Your task to perform on an android device: choose inbox layout in the gmail app Image 0: 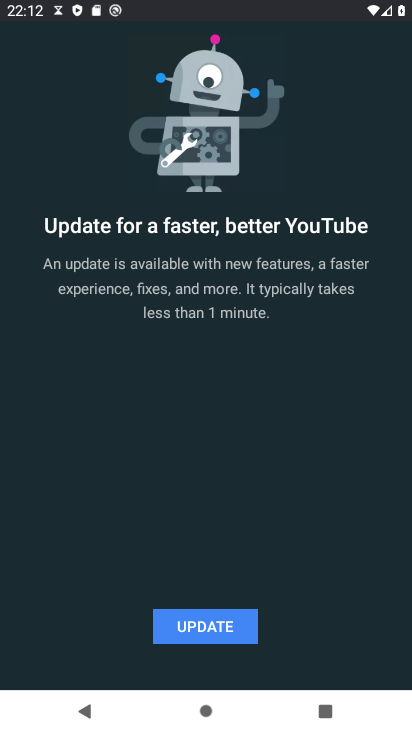
Step 0: press home button
Your task to perform on an android device: choose inbox layout in the gmail app Image 1: 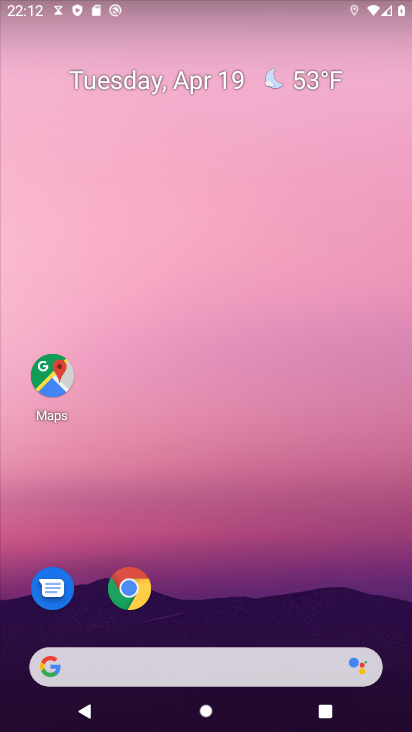
Step 1: drag from (220, 626) to (252, 75)
Your task to perform on an android device: choose inbox layout in the gmail app Image 2: 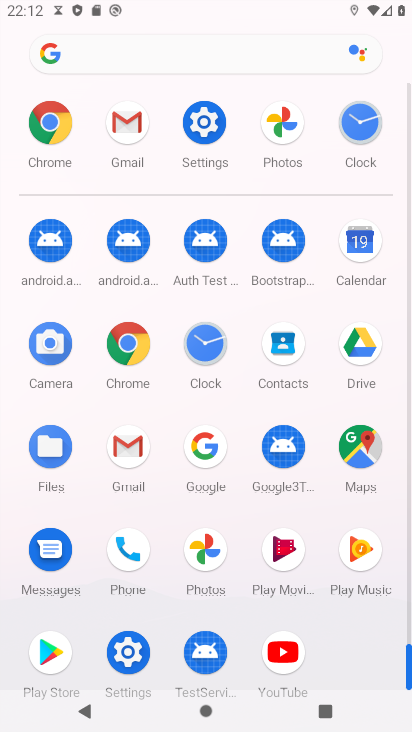
Step 2: click (126, 126)
Your task to perform on an android device: choose inbox layout in the gmail app Image 3: 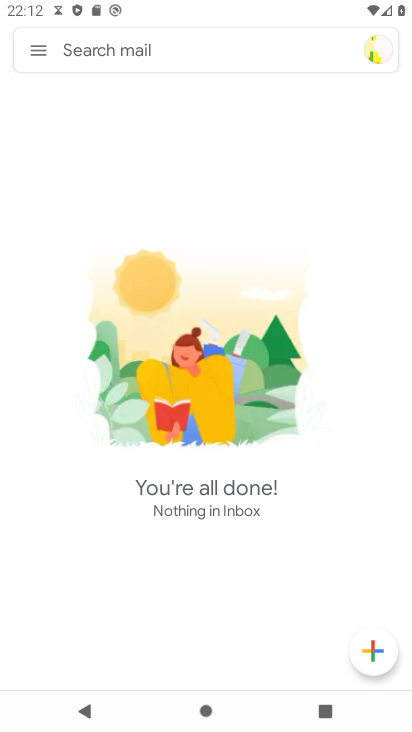
Step 3: click (36, 49)
Your task to perform on an android device: choose inbox layout in the gmail app Image 4: 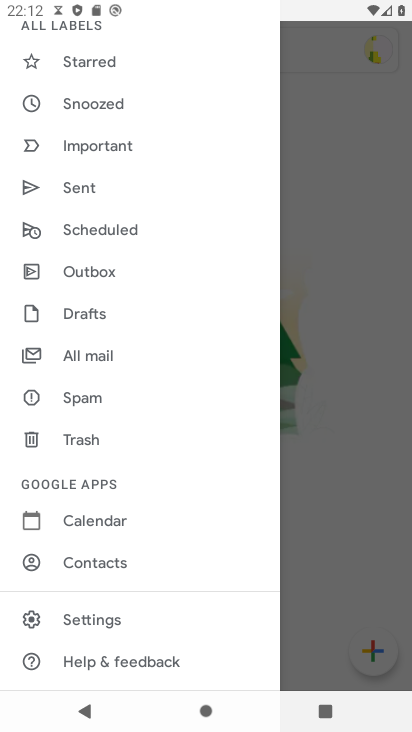
Step 4: click (109, 620)
Your task to perform on an android device: choose inbox layout in the gmail app Image 5: 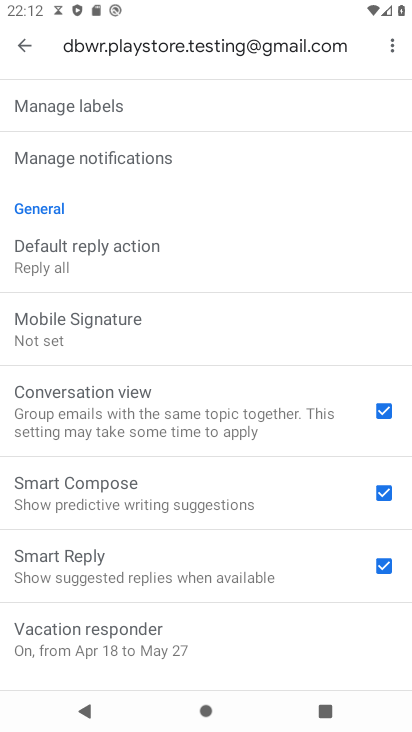
Step 5: drag from (184, 242) to (205, 363)
Your task to perform on an android device: choose inbox layout in the gmail app Image 6: 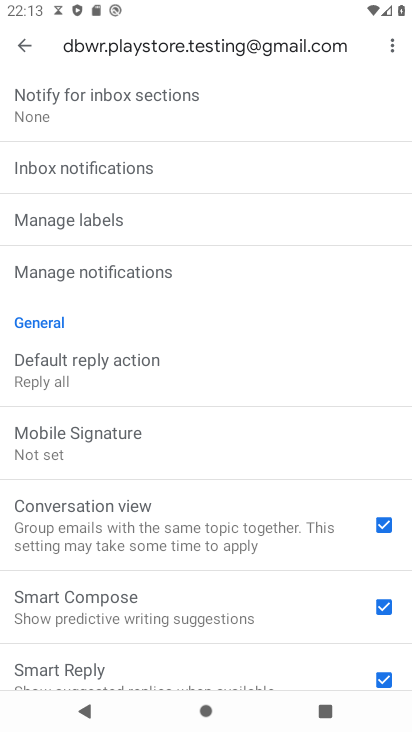
Step 6: drag from (199, 285) to (189, 382)
Your task to perform on an android device: choose inbox layout in the gmail app Image 7: 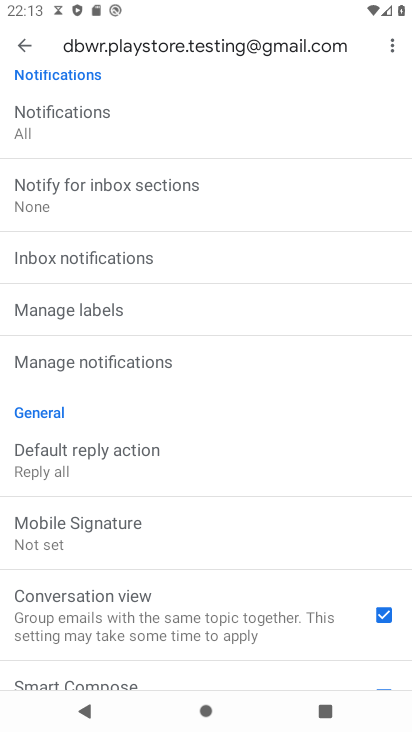
Step 7: drag from (187, 139) to (168, 273)
Your task to perform on an android device: choose inbox layout in the gmail app Image 8: 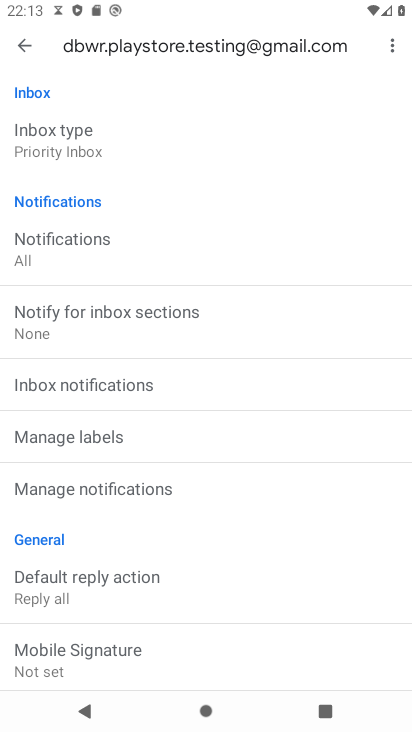
Step 8: click (77, 156)
Your task to perform on an android device: choose inbox layout in the gmail app Image 9: 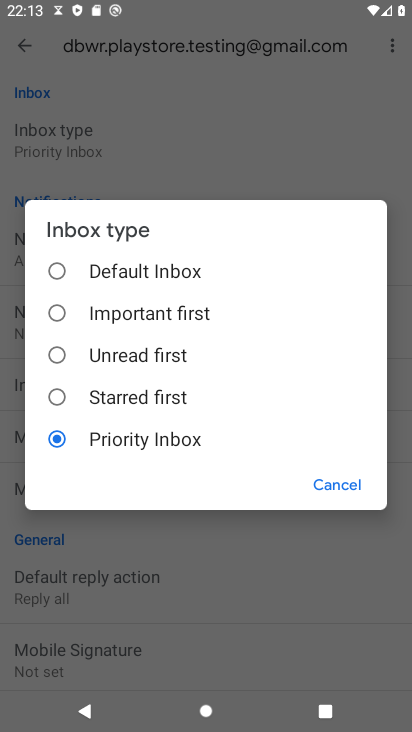
Step 9: click (98, 279)
Your task to perform on an android device: choose inbox layout in the gmail app Image 10: 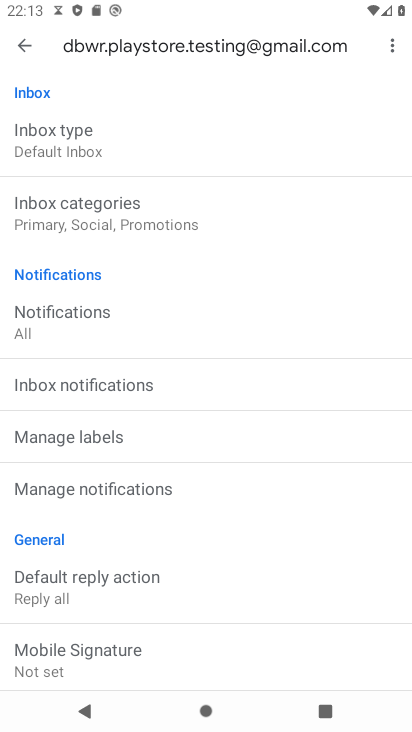
Step 10: task complete